Your task to perform on an android device: Open battery settings Image 0: 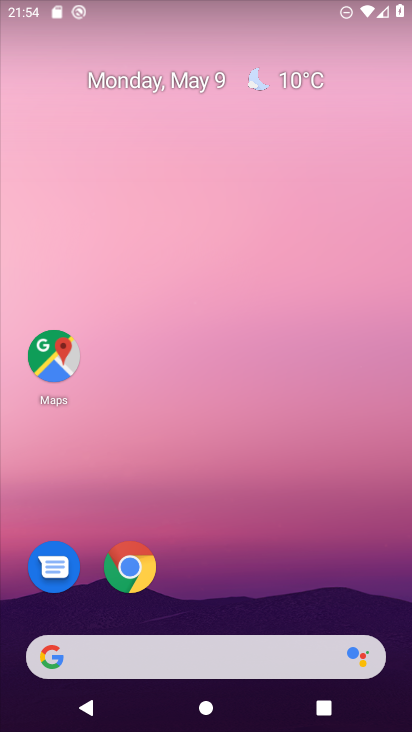
Step 0: drag from (311, 557) to (297, 94)
Your task to perform on an android device: Open battery settings Image 1: 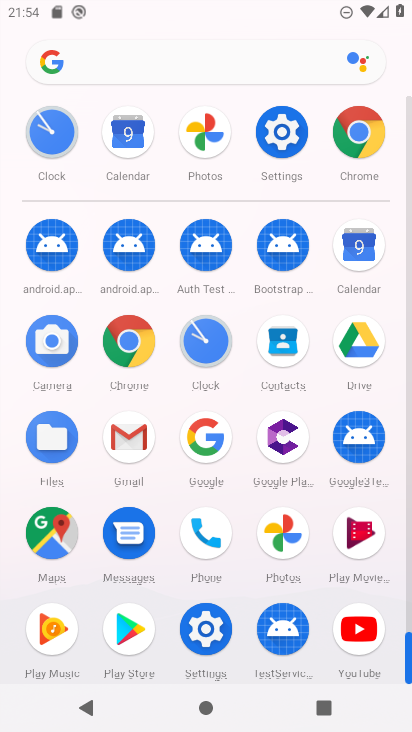
Step 1: click (290, 141)
Your task to perform on an android device: Open battery settings Image 2: 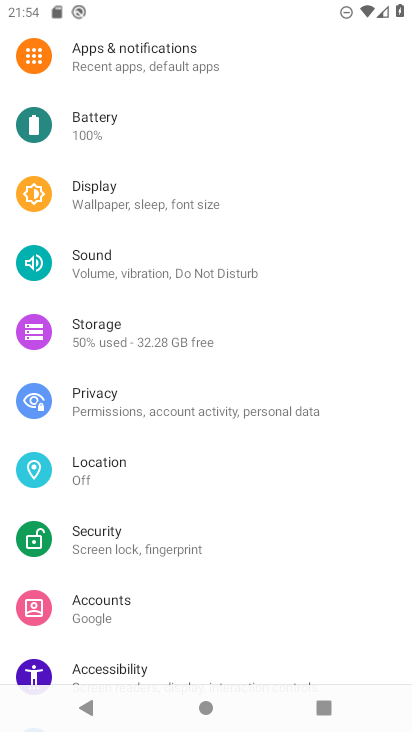
Step 2: click (166, 123)
Your task to perform on an android device: Open battery settings Image 3: 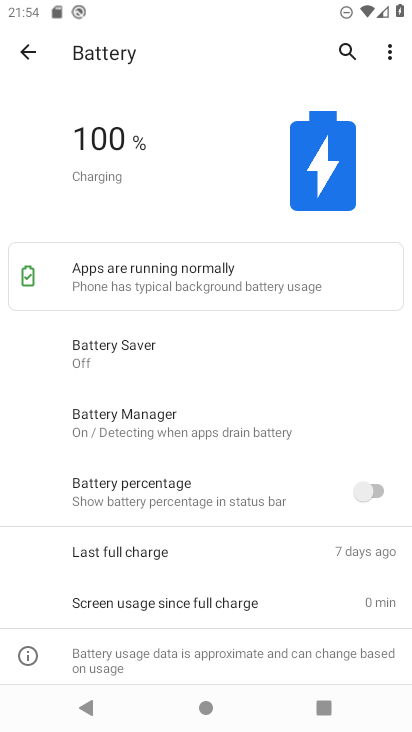
Step 3: task complete